Your task to perform on an android device: Is it going to rain today? Image 0: 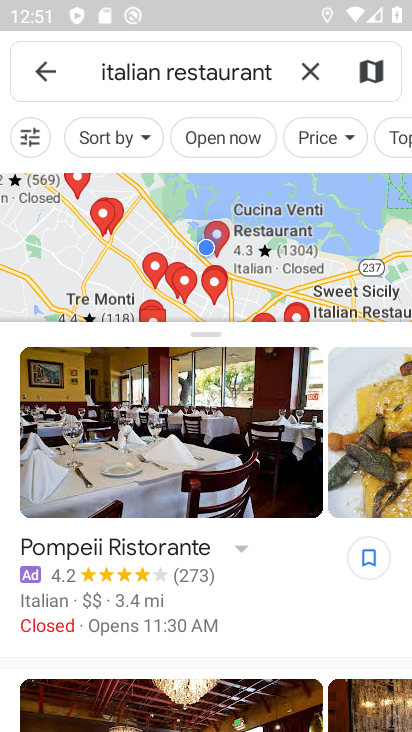
Step 0: press home button
Your task to perform on an android device: Is it going to rain today? Image 1: 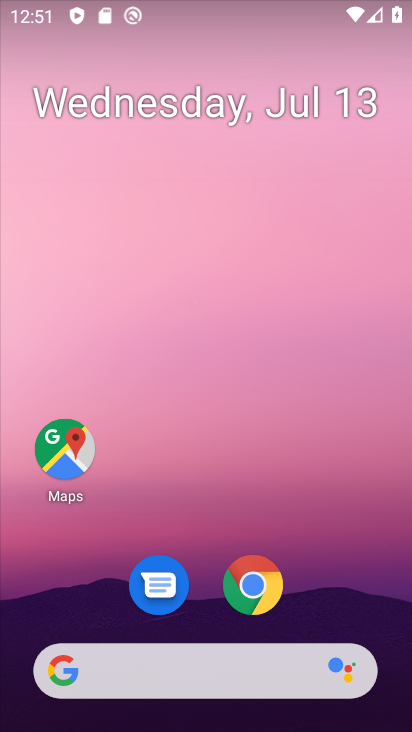
Step 1: click (196, 675)
Your task to perform on an android device: Is it going to rain today? Image 2: 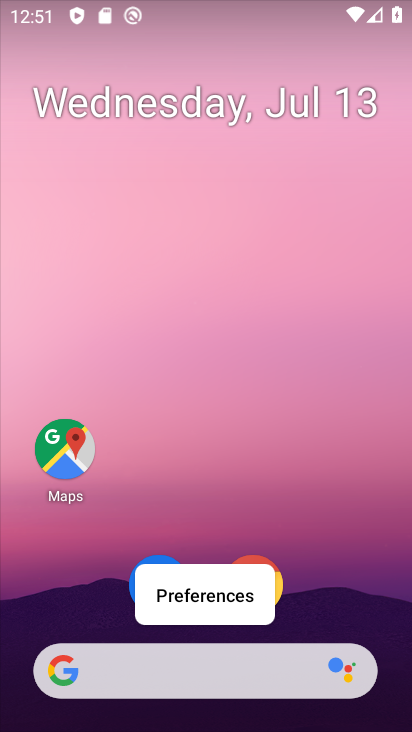
Step 2: click (176, 674)
Your task to perform on an android device: Is it going to rain today? Image 3: 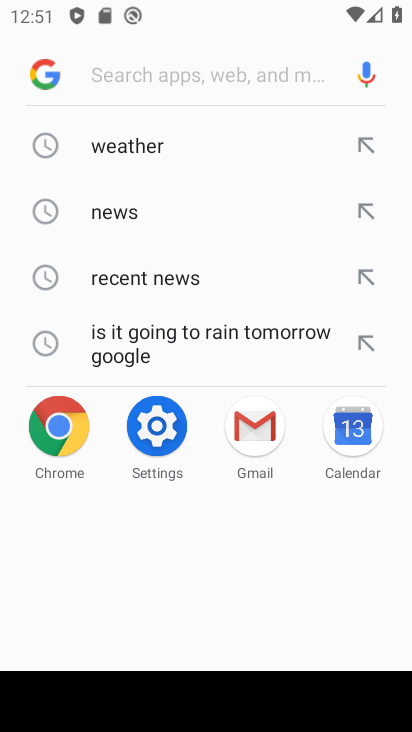
Step 3: click (49, 150)
Your task to perform on an android device: Is it going to rain today? Image 4: 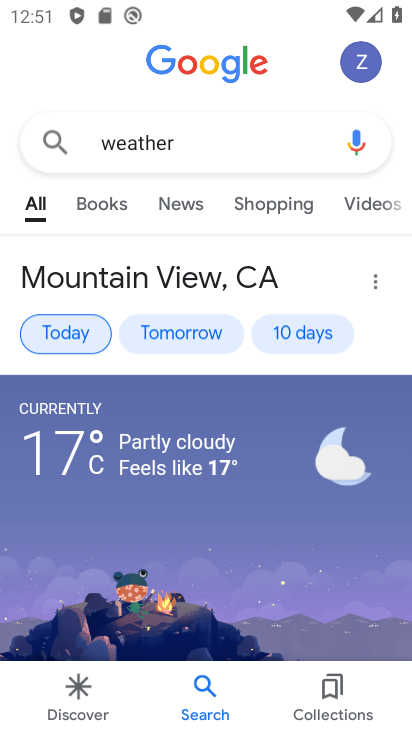
Step 4: click (89, 337)
Your task to perform on an android device: Is it going to rain today? Image 5: 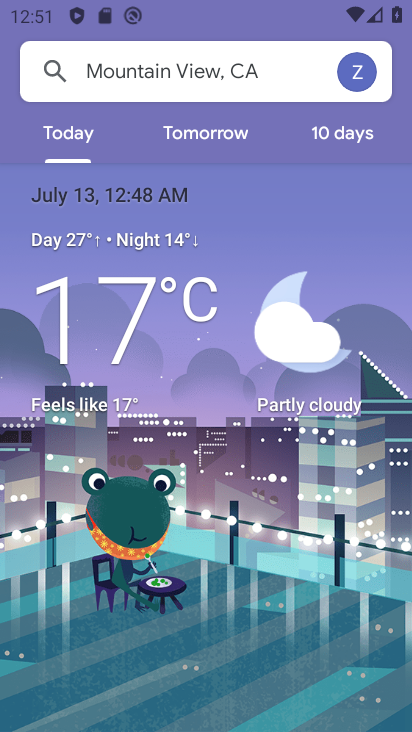
Step 5: task complete